Your task to perform on an android device: open wifi settings Image 0: 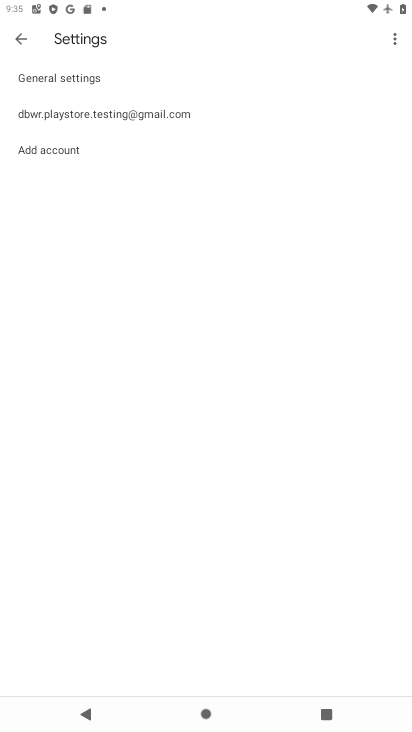
Step 0: press home button
Your task to perform on an android device: open wifi settings Image 1: 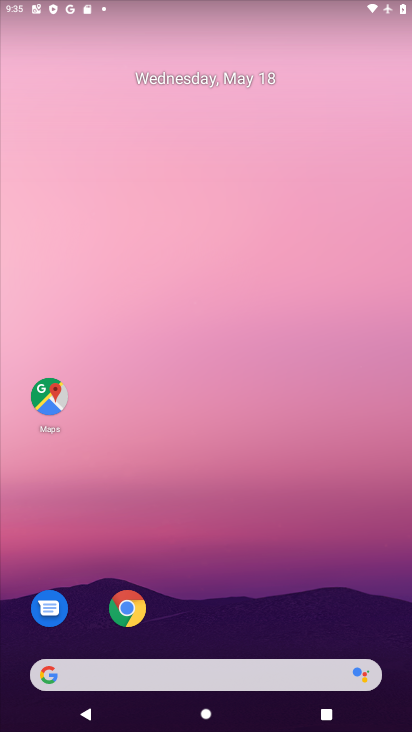
Step 1: drag from (267, 511) to (276, 62)
Your task to perform on an android device: open wifi settings Image 2: 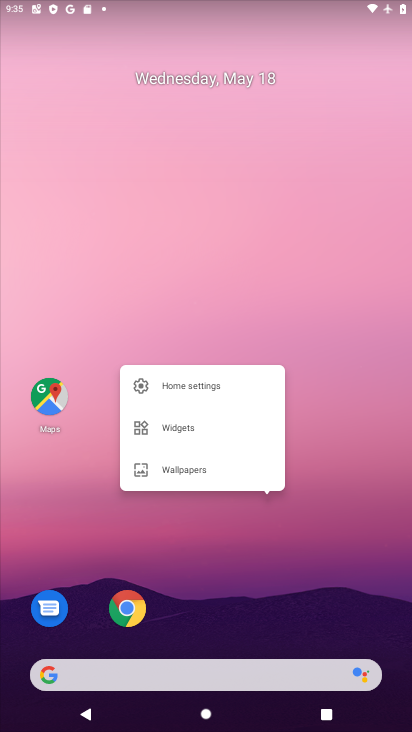
Step 2: click (304, 575)
Your task to perform on an android device: open wifi settings Image 3: 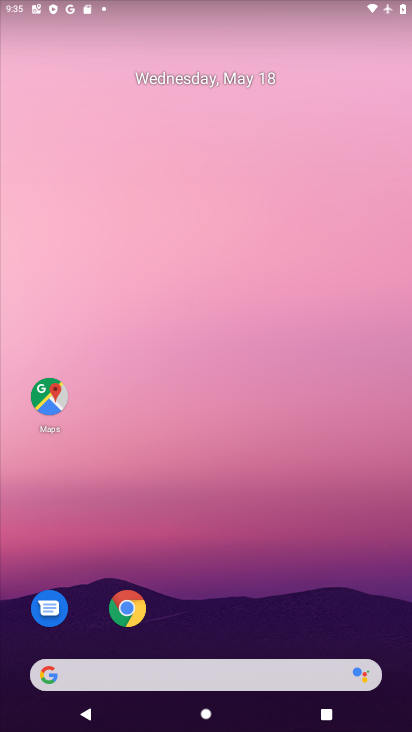
Step 3: drag from (304, 575) to (267, 45)
Your task to perform on an android device: open wifi settings Image 4: 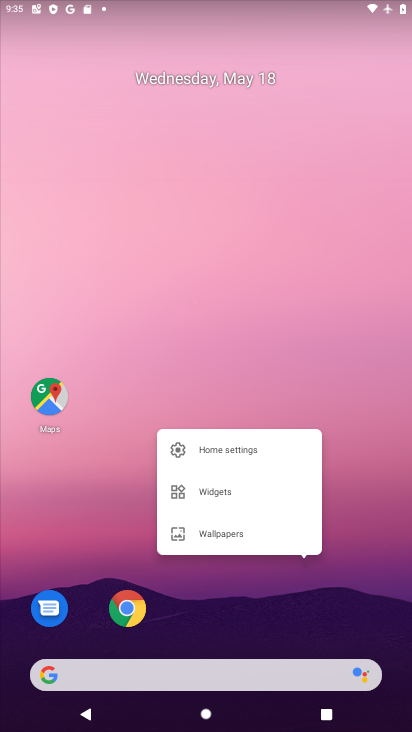
Step 4: click (345, 381)
Your task to perform on an android device: open wifi settings Image 5: 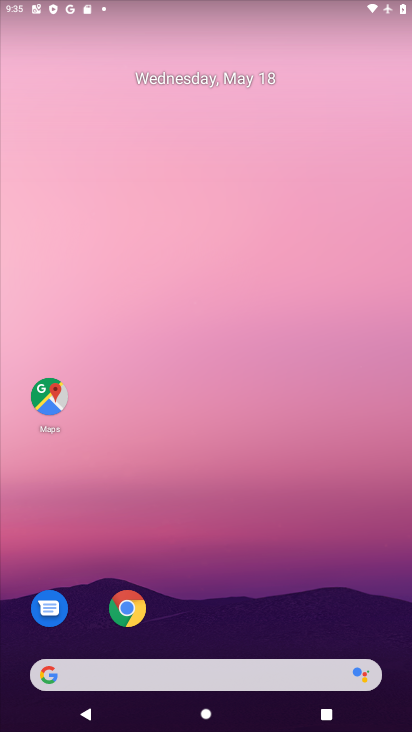
Step 5: drag from (228, 588) to (229, 27)
Your task to perform on an android device: open wifi settings Image 6: 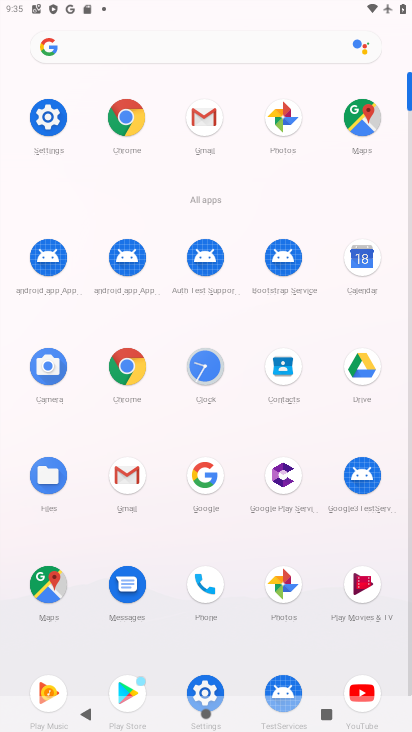
Step 6: click (41, 147)
Your task to perform on an android device: open wifi settings Image 7: 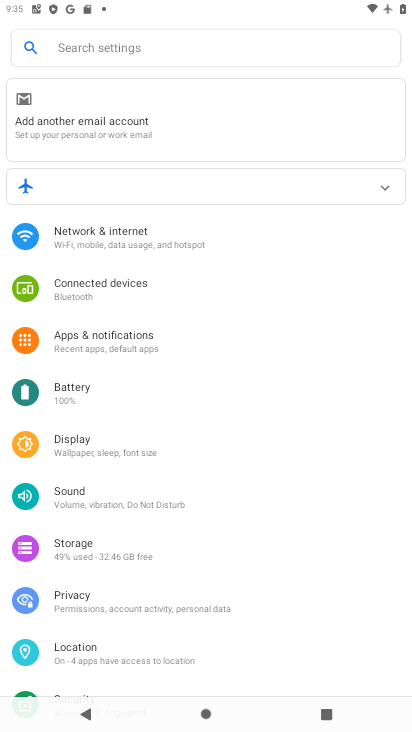
Step 7: click (143, 236)
Your task to perform on an android device: open wifi settings Image 8: 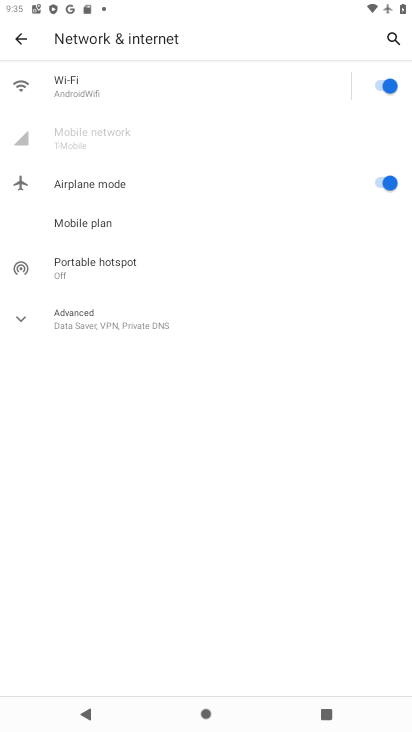
Step 8: task complete